Your task to perform on an android device: Show me productivity apps on the Play Store Image 0: 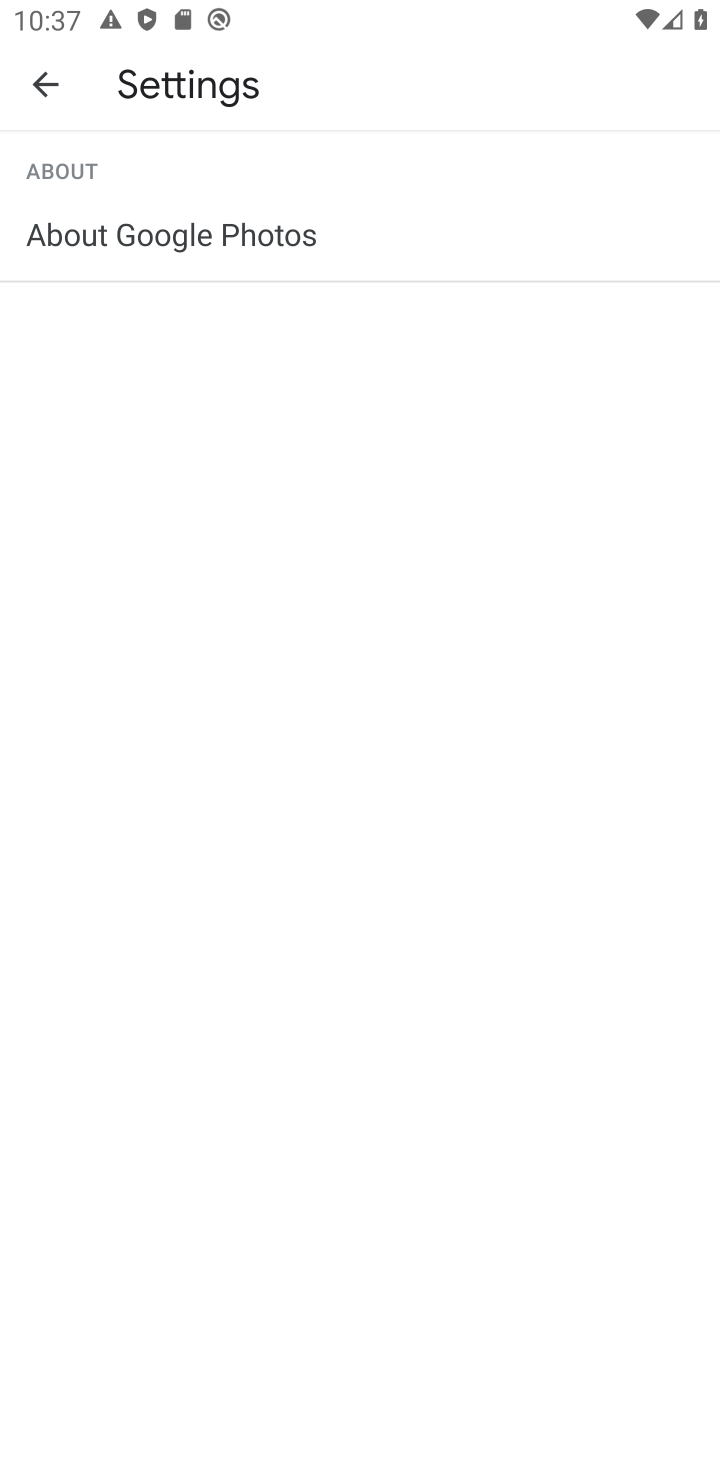
Step 0: press home button
Your task to perform on an android device: Show me productivity apps on the Play Store Image 1: 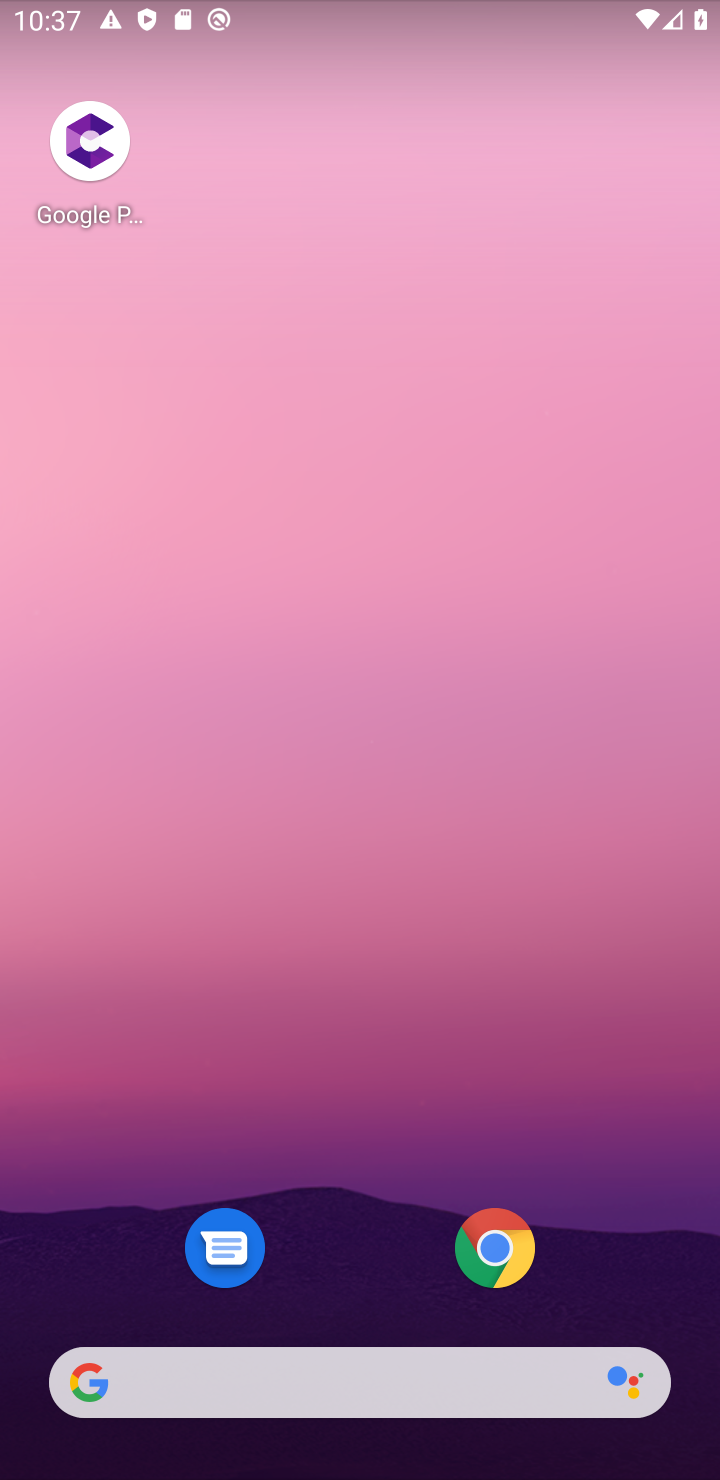
Step 1: drag from (344, 1062) to (476, 184)
Your task to perform on an android device: Show me productivity apps on the Play Store Image 2: 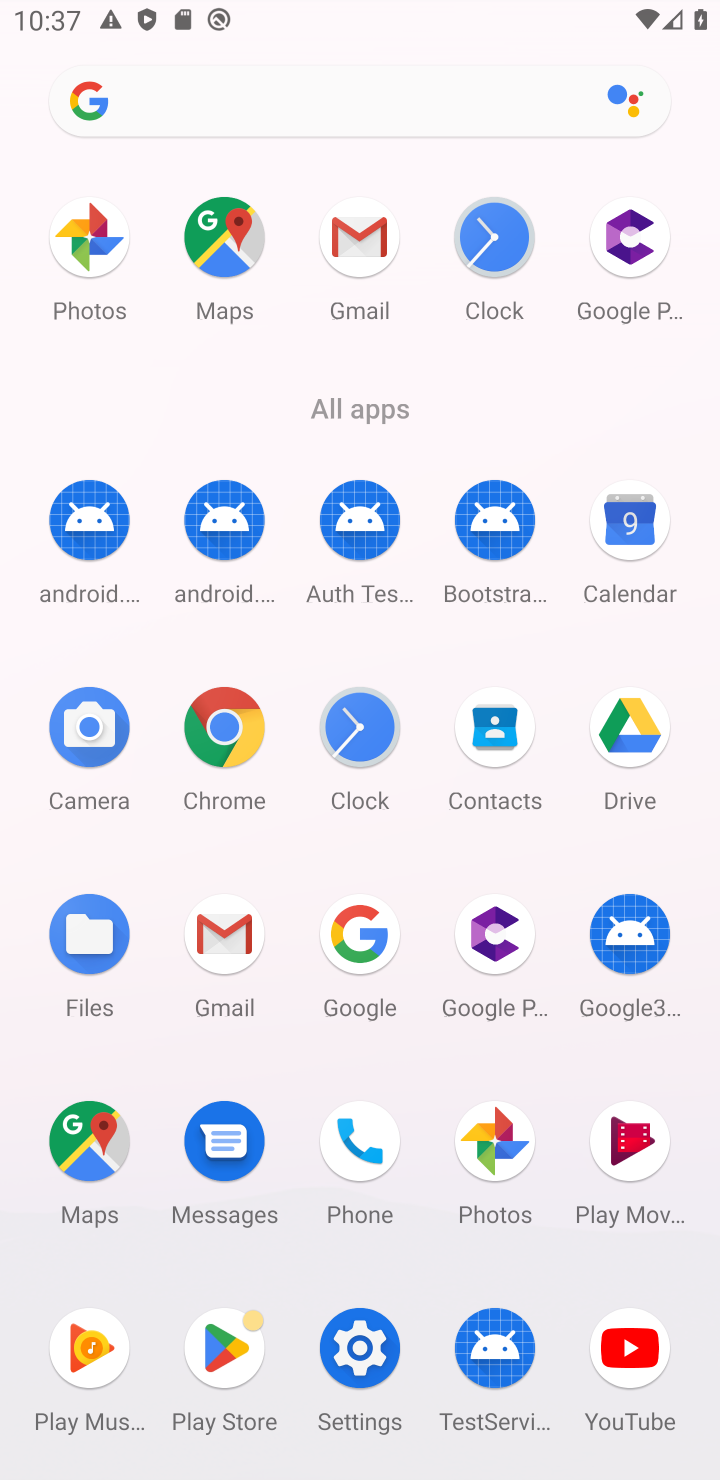
Step 2: click (214, 1352)
Your task to perform on an android device: Show me productivity apps on the Play Store Image 3: 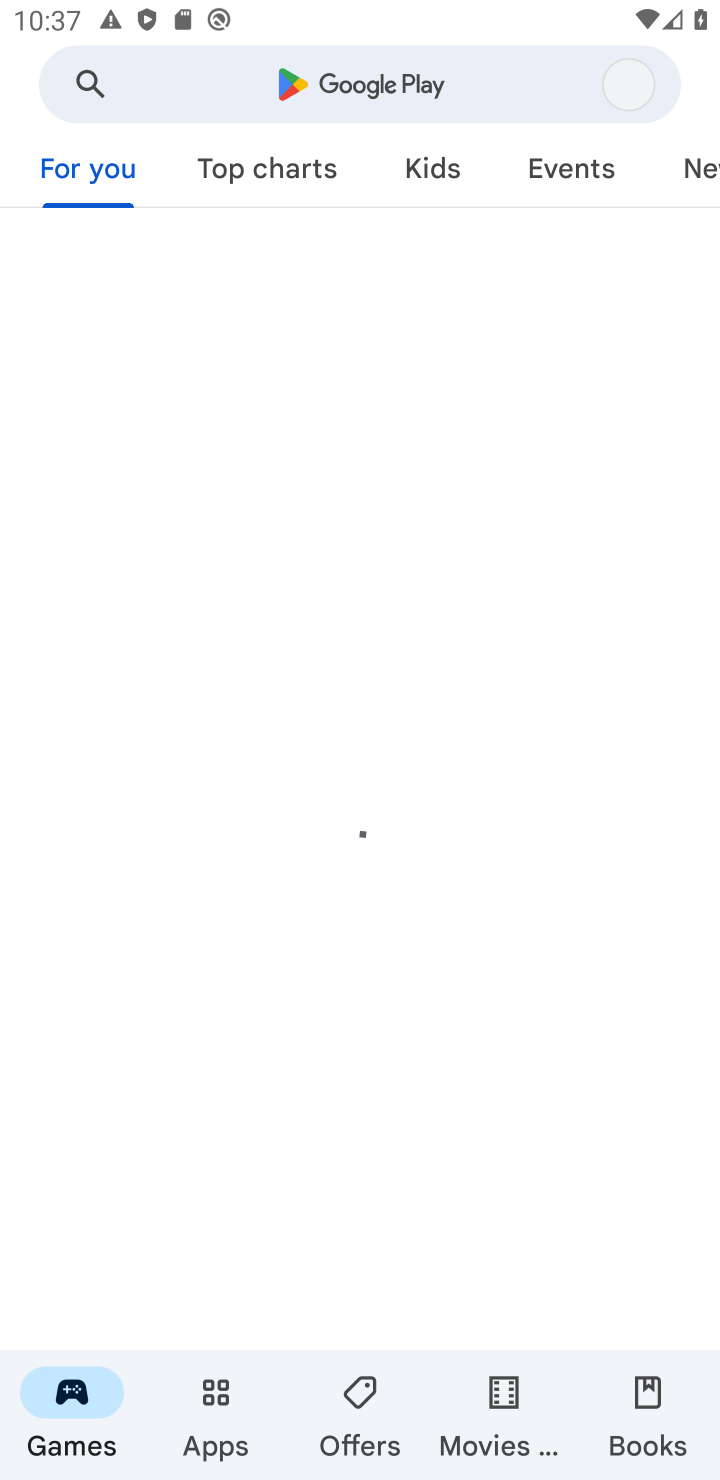
Step 3: task complete